Your task to perform on an android device: remove spam from my inbox in the gmail app Image 0: 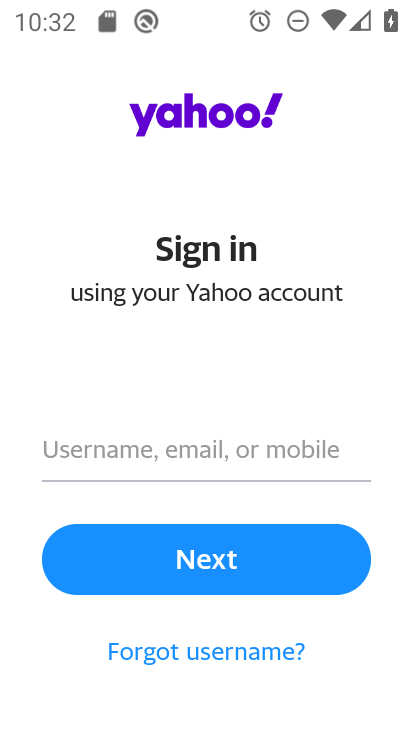
Step 0: press home button
Your task to perform on an android device: remove spam from my inbox in the gmail app Image 1: 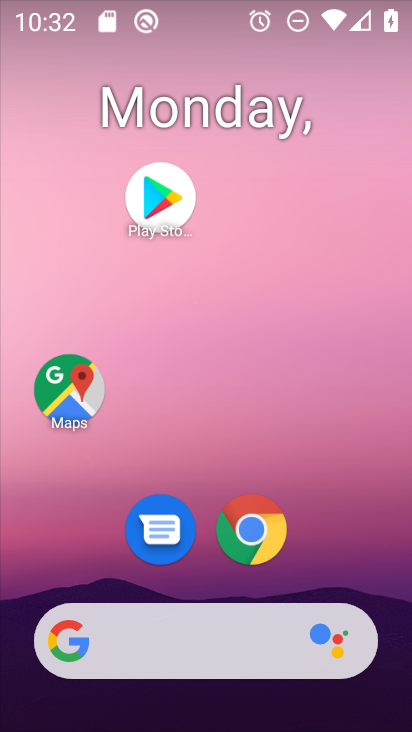
Step 1: drag from (262, 432) to (203, 101)
Your task to perform on an android device: remove spam from my inbox in the gmail app Image 2: 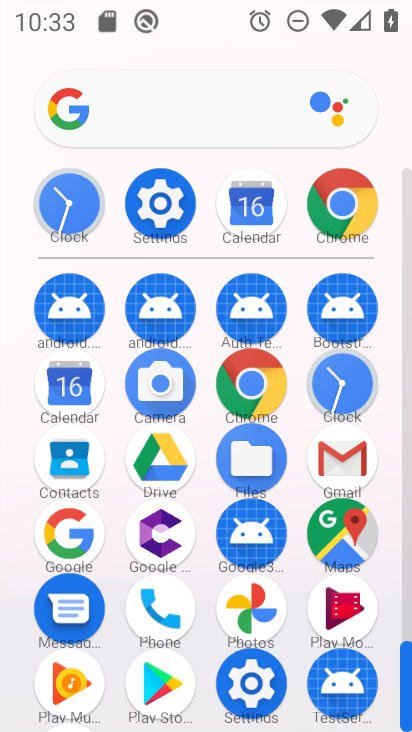
Step 2: click (343, 461)
Your task to perform on an android device: remove spam from my inbox in the gmail app Image 3: 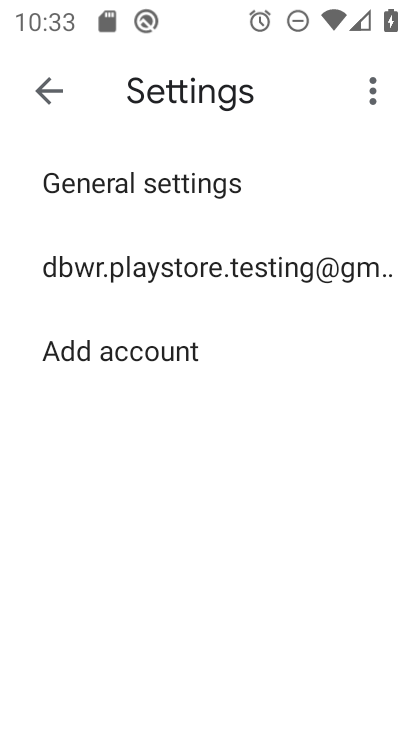
Step 3: click (48, 86)
Your task to perform on an android device: remove spam from my inbox in the gmail app Image 4: 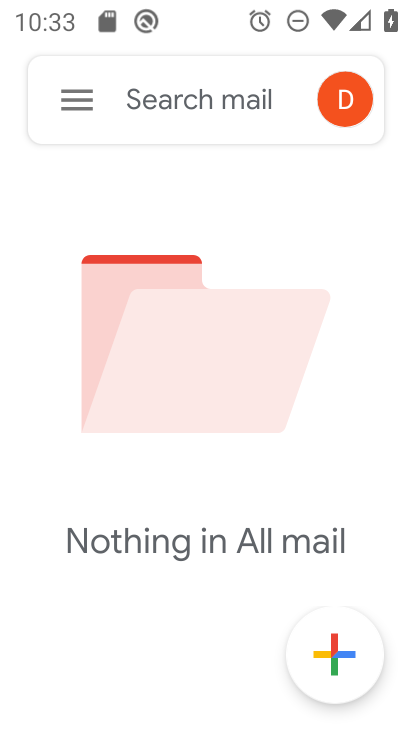
Step 4: click (68, 98)
Your task to perform on an android device: remove spam from my inbox in the gmail app Image 5: 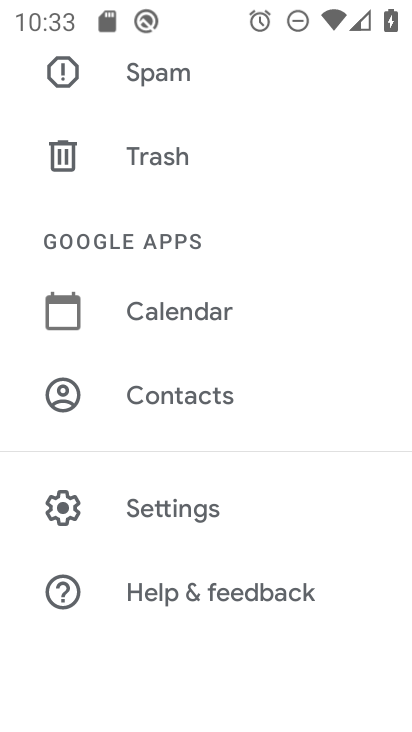
Step 5: click (164, 71)
Your task to perform on an android device: remove spam from my inbox in the gmail app Image 6: 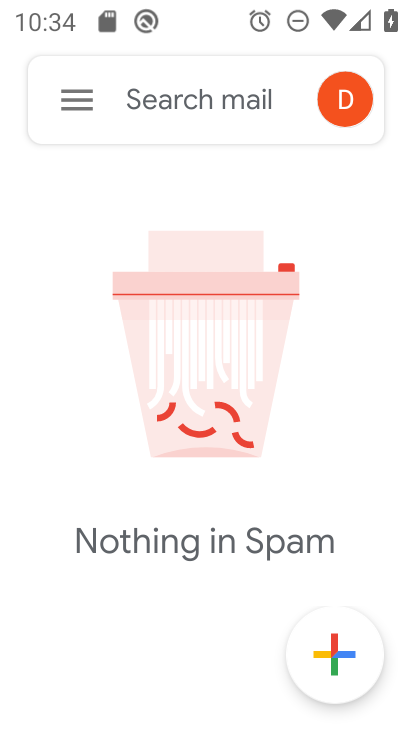
Step 6: click (75, 102)
Your task to perform on an android device: remove spam from my inbox in the gmail app Image 7: 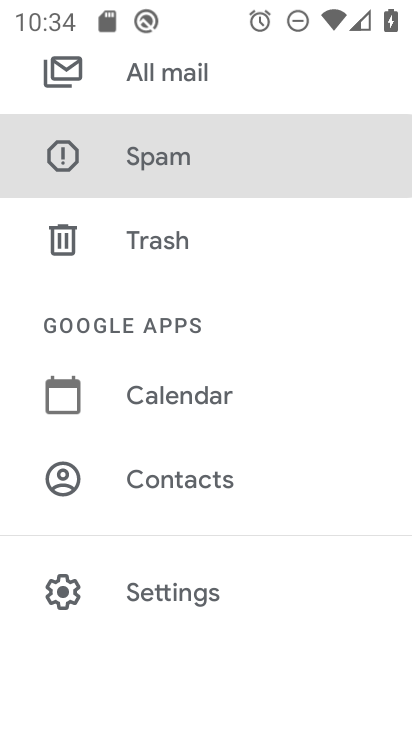
Step 7: click (166, 165)
Your task to perform on an android device: remove spam from my inbox in the gmail app Image 8: 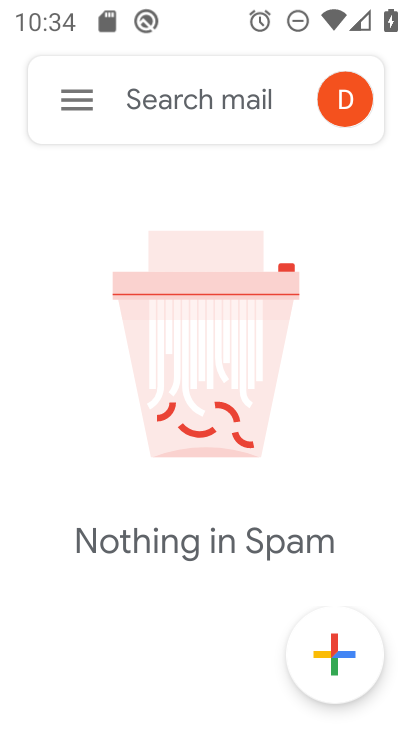
Step 8: task complete